Your task to perform on an android device: Open the Play Movies app and select the watchlist tab. Image 0: 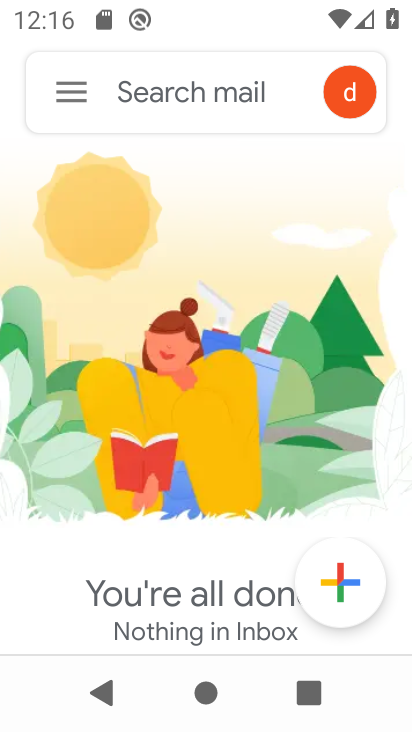
Step 0: press back button
Your task to perform on an android device: Open the Play Movies app and select the watchlist tab. Image 1: 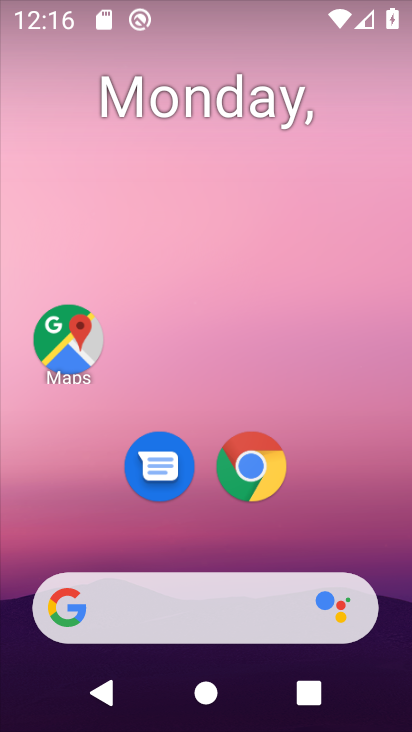
Step 1: drag from (209, 522) to (157, 7)
Your task to perform on an android device: Open the Play Movies app and select the watchlist tab. Image 2: 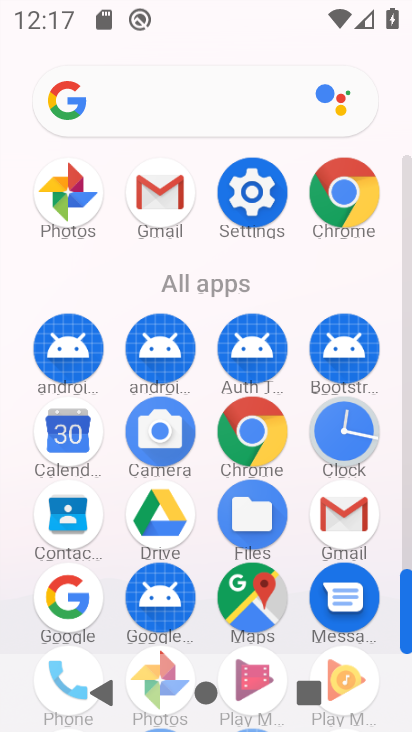
Step 2: drag from (211, 599) to (273, 113)
Your task to perform on an android device: Open the Play Movies app and select the watchlist tab. Image 3: 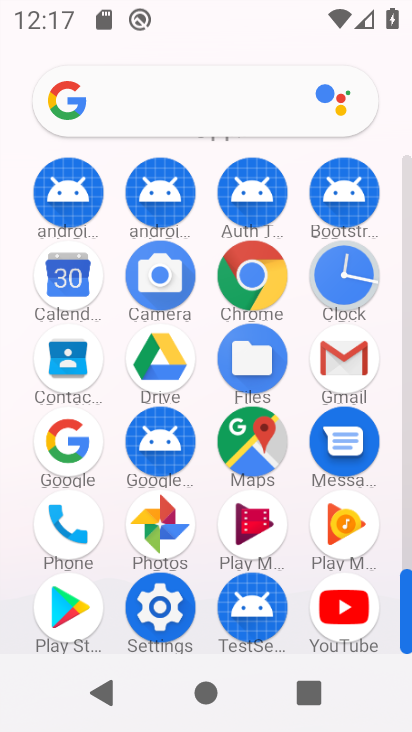
Step 3: click (246, 535)
Your task to perform on an android device: Open the Play Movies app and select the watchlist tab. Image 4: 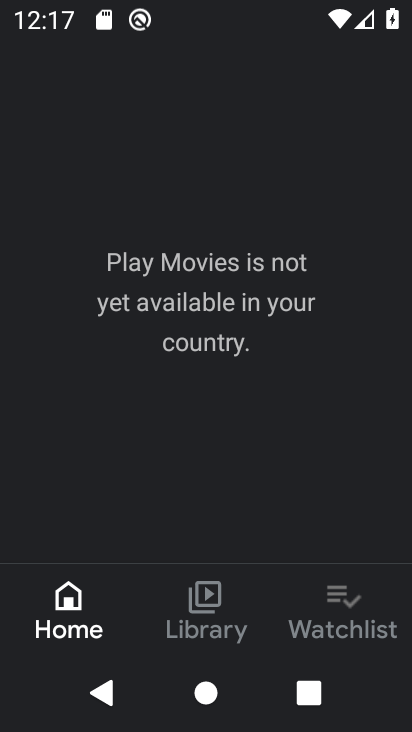
Step 4: click (357, 617)
Your task to perform on an android device: Open the Play Movies app and select the watchlist tab. Image 5: 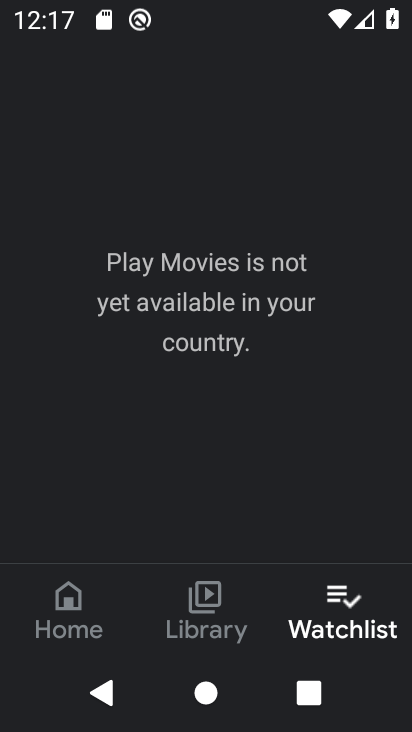
Step 5: task complete